Your task to perform on an android device: check data usage Image 0: 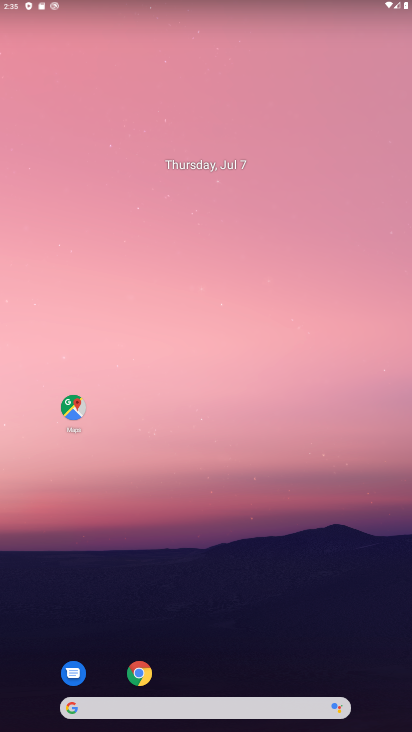
Step 0: drag from (243, 644) to (283, 57)
Your task to perform on an android device: check data usage Image 1: 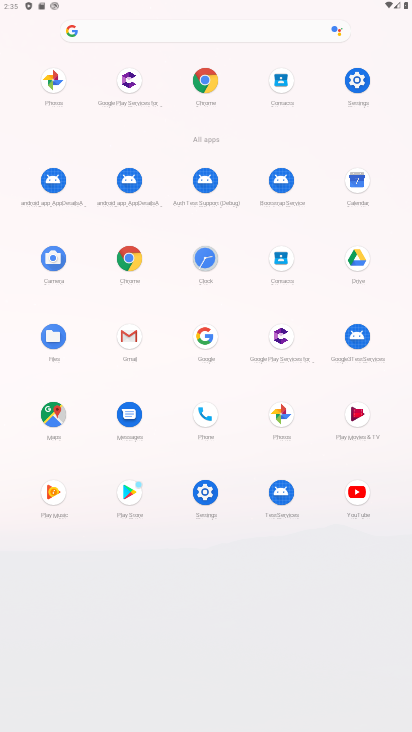
Step 1: click (208, 500)
Your task to perform on an android device: check data usage Image 2: 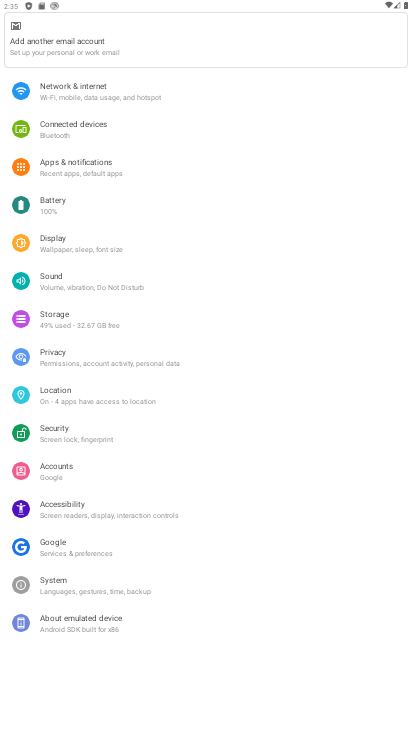
Step 2: click (120, 88)
Your task to perform on an android device: check data usage Image 3: 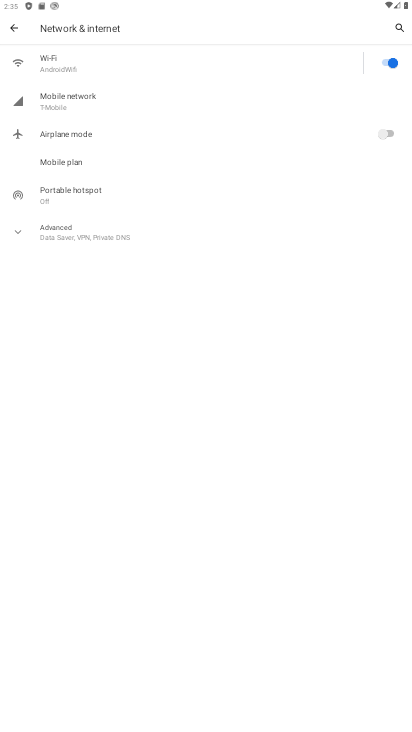
Step 3: click (84, 95)
Your task to perform on an android device: check data usage Image 4: 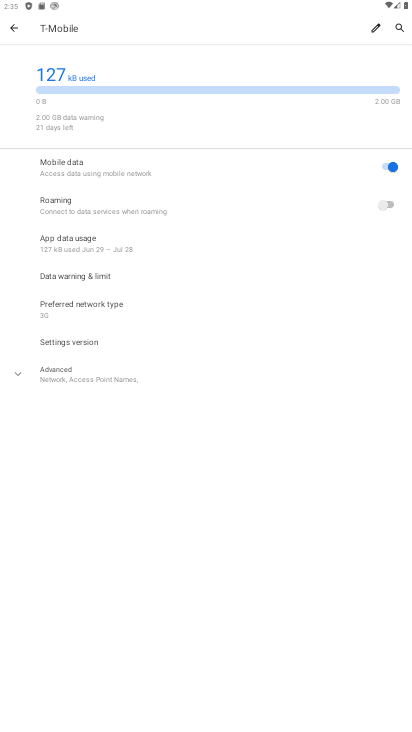
Step 4: click (102, 251)
Your task to perform on an android device: check data usage Image 5: 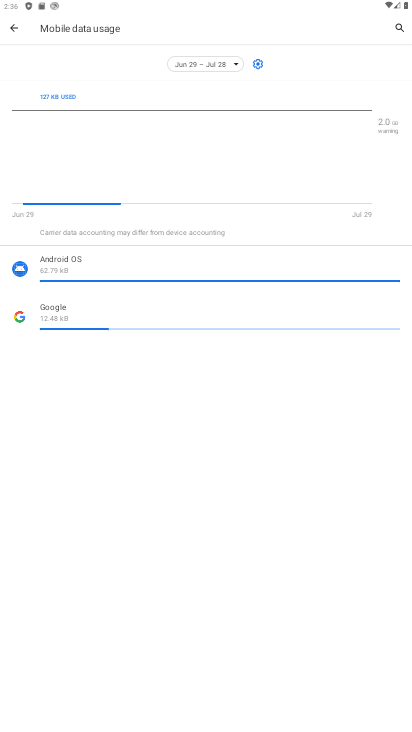
Step 5: task complete